Your task to perform on an android device: see creations saved in the google photos Image 0: 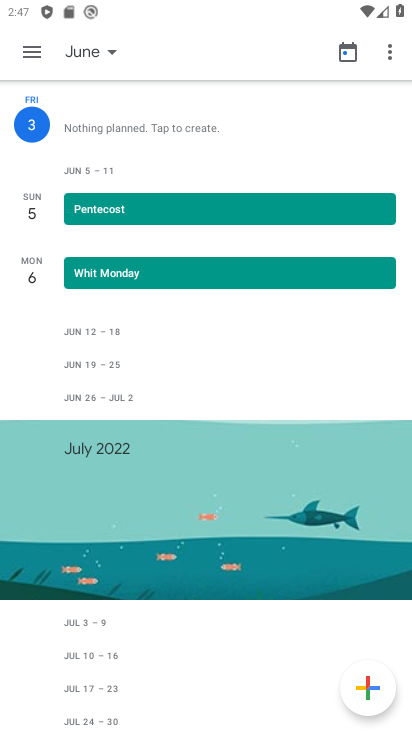
Step 0: press home button
Your task to perform on an android device: see creations saved in the google photos Image 1: 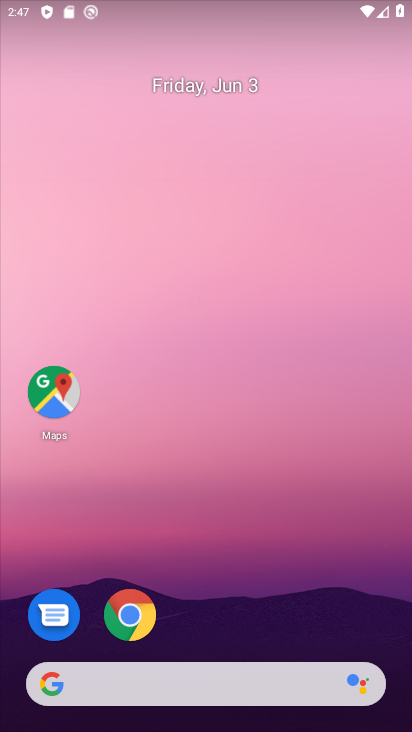
Step 1: drag from (204, 632) to (355, 141)
Your task to perform on an android device: see creations saved in the google photos Image 2: 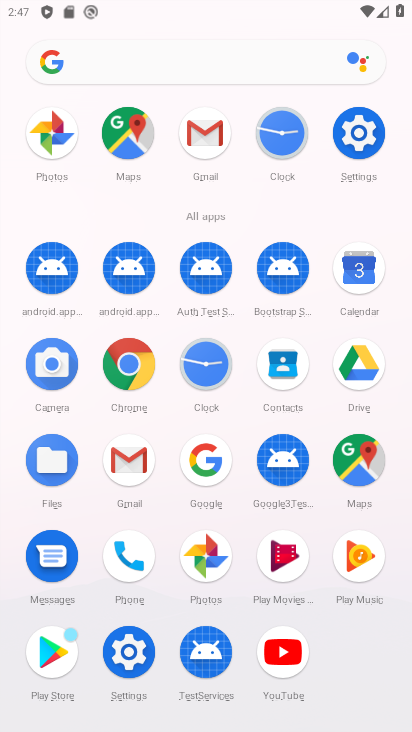
Step 2: click (205, 565)
Your task to perform on an android device: see creations saved in the google photos Image 3: 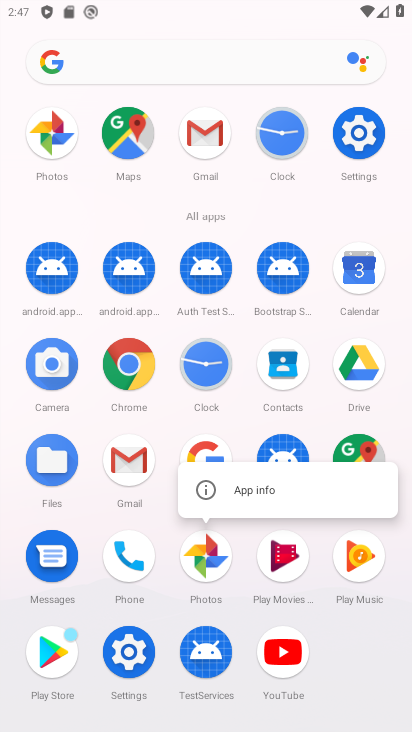
Step 3: click (197, 555)
Your task to perform on an android device: see creations saved in the google photos Image 4: 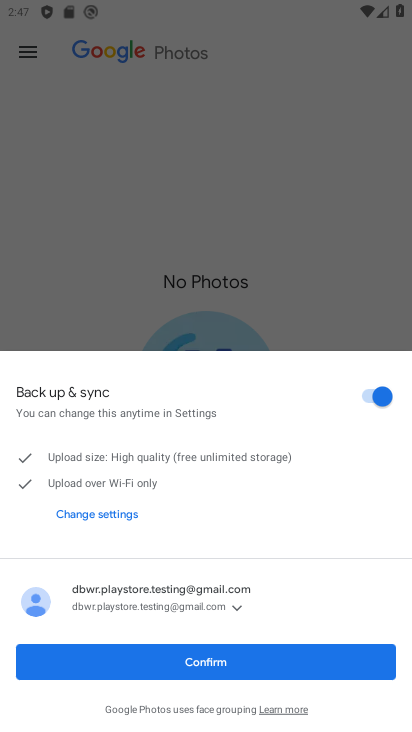
Step 4: click (383, 668)
Your task to perform on an android device: see creations saved in the google photos Image 5: 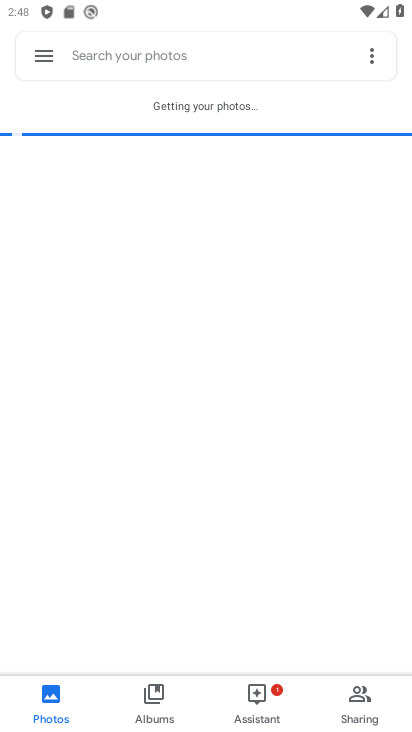
Step 5: click (99, 66)
Your task to perform on an android device: see creations saved in the google photos Image 6: 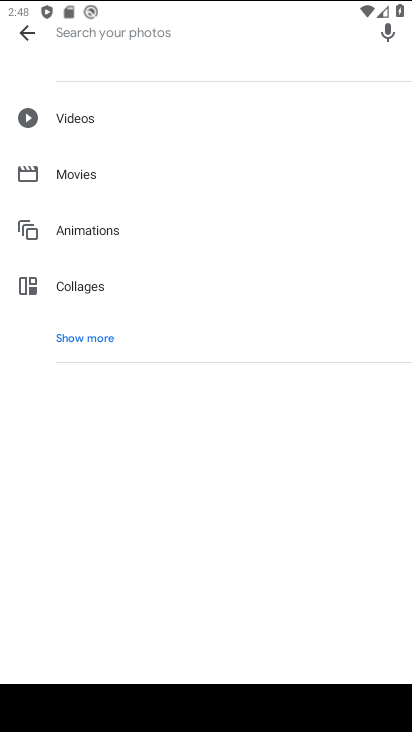
Step 6: type "creations"
Your task to perform on an android device: see creations saved in the google photos Image 7: 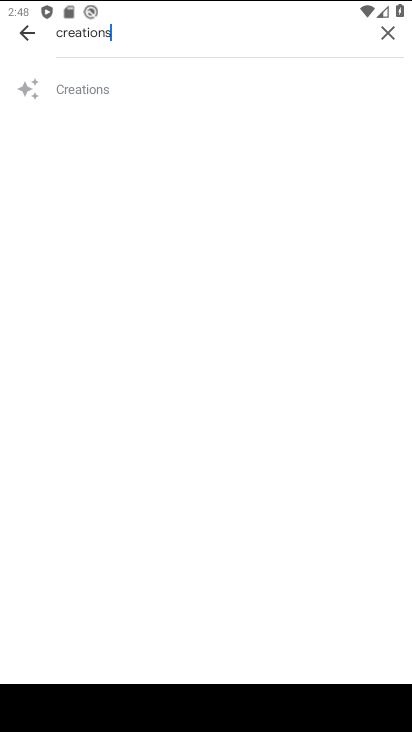
Step 7: click (108, 104)
Your task to perform on an android device: see creations saved in the google photos Image 8: 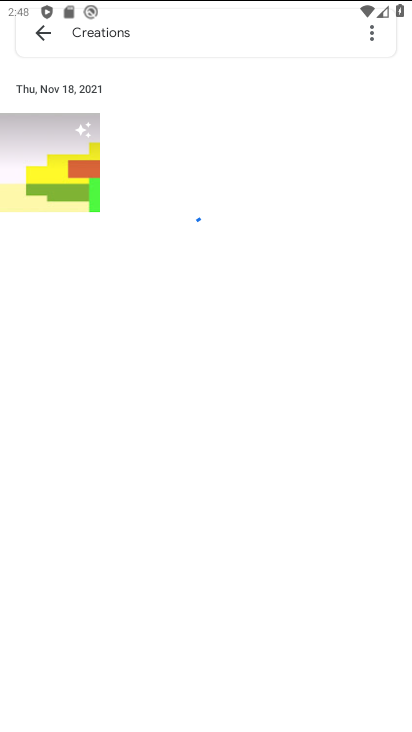
Step 8: task complete